Your task to perform on an android device: Open privacy settings Image 0: 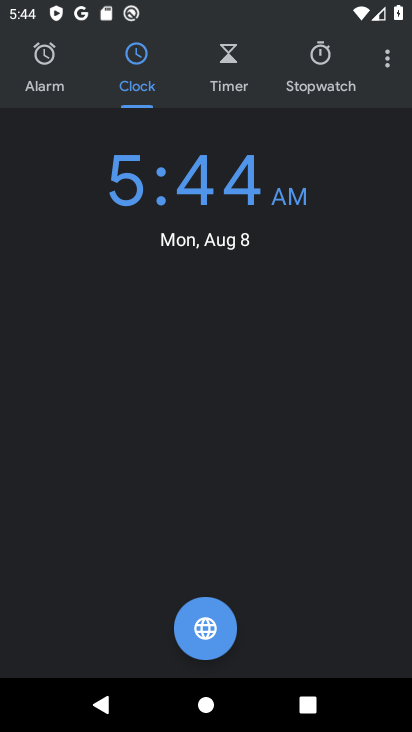
Step 0: press home button
Your task to perform on an android device: Open privacy settings Image 1: 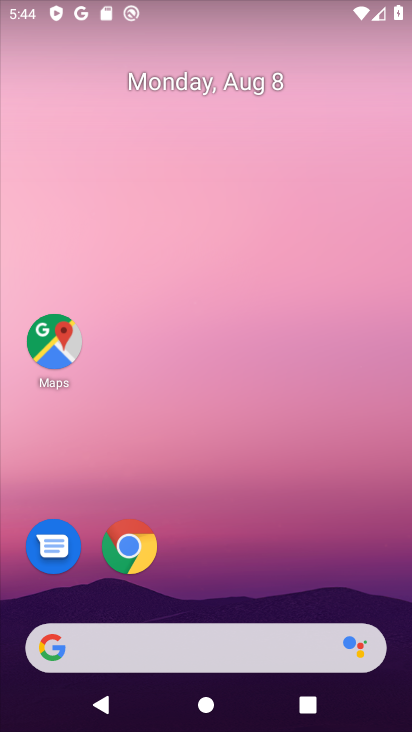
Step 1: drag from (199, 600) to (170, 136)
Your task to perform on an android device: Open privacy settings Image 2: 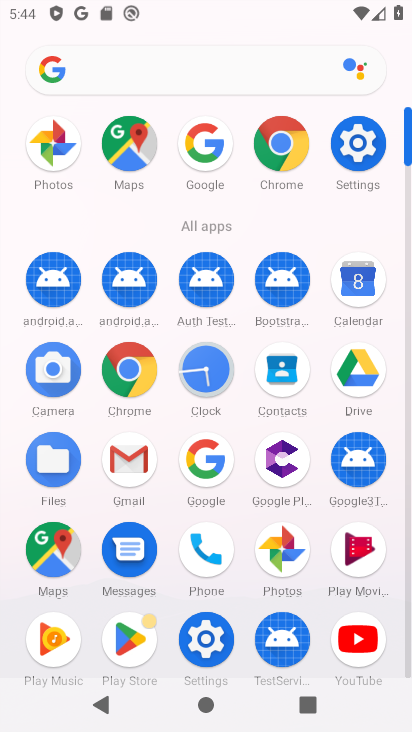
Step 2: click (367, 143)
Your task to perform on an android device: Open privacy settings Image 3: 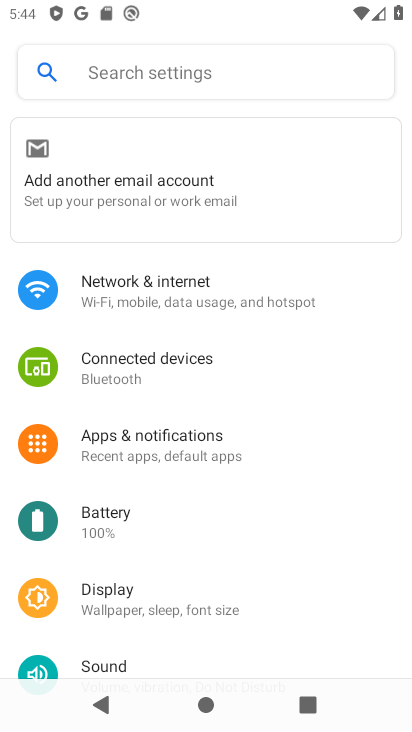
Step 3: drag from (148, 574) to (151, 264)
Your task to perform on an android device: Open privacy settings Image 4: 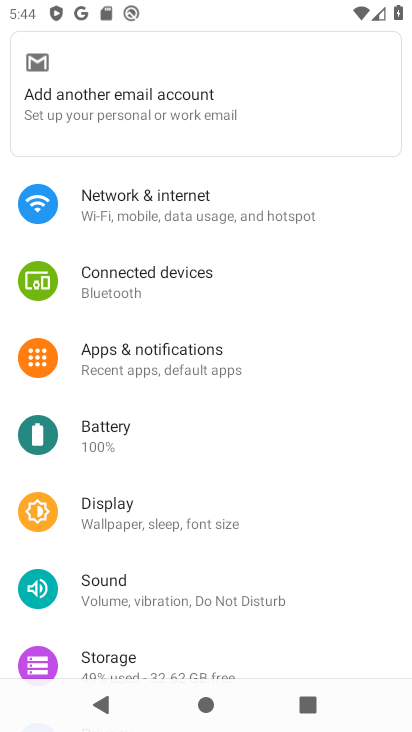
Step 4: drag from (169, 577) to (169, 256)
Your task to perform on an android device: Open privacy settings Image 5: 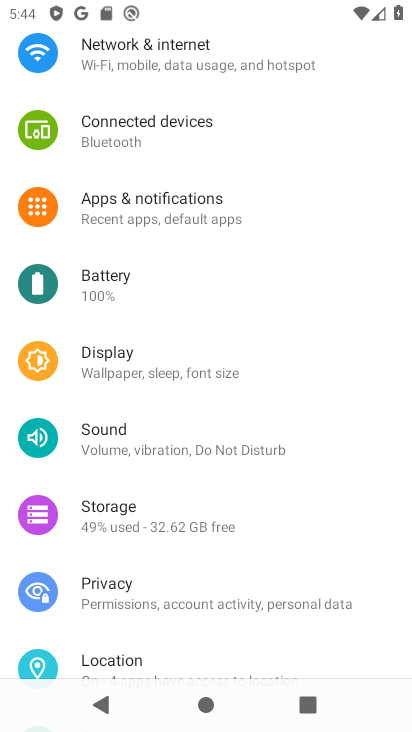
Step 5: click (139, 590)
Your task to perform on an android device: Open privacy settings Image 6: 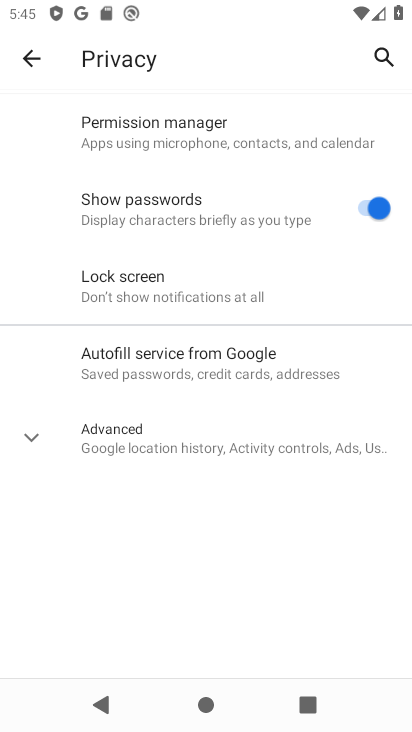
Step 6: task complete